Your task to perform on an android device: find snoozed emails in the gmail app Image 0: 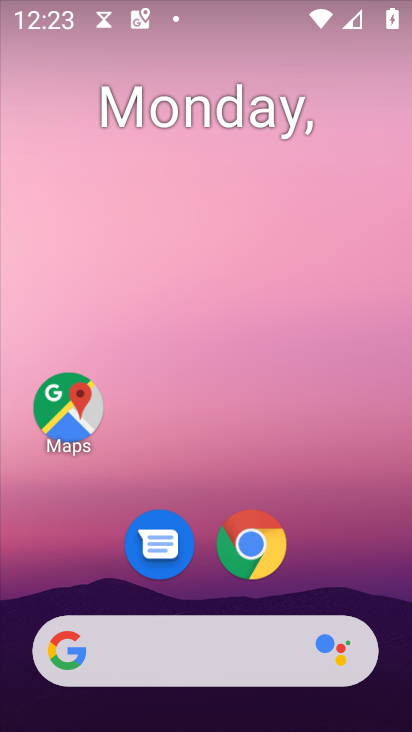
Step 0: drag from (317, 352) to (312, 209)
Your task to perform on an android device: find snoozed emails in the gmail app Image 1: 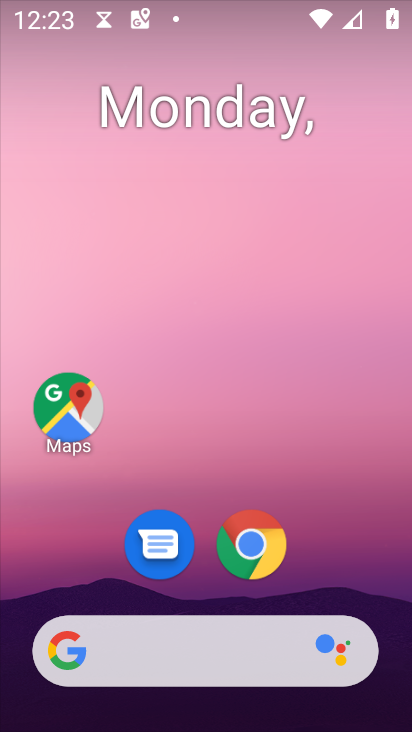
Step 1: drag from (344, 605) to (345, 220)
Your task to perform on an android device: find snoozed emails in the gmail app Image 2: 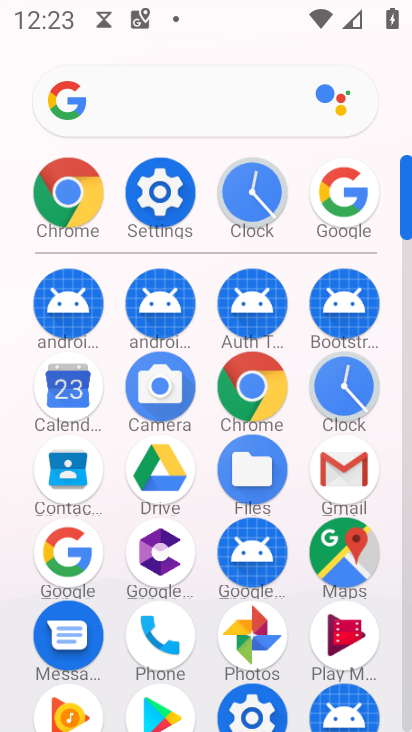
Step 2: click (335, 473)
Your task to perform on an android device: find snoozed emails in the gmail app Image 3: 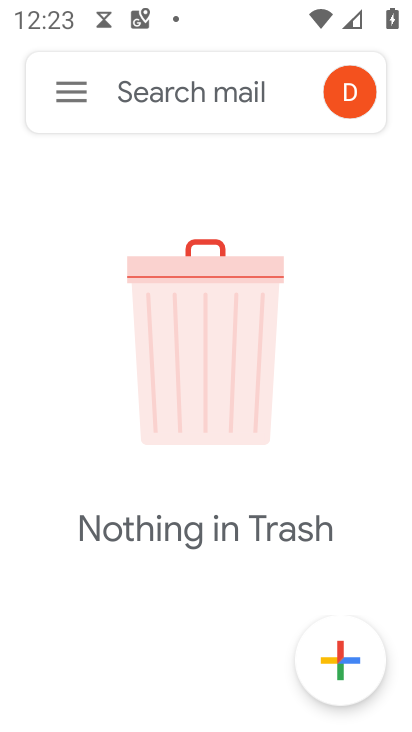
Step 3: click (57, 85)
Your task to perform on an android device: find snoozed emails in the gmail app Image 4: 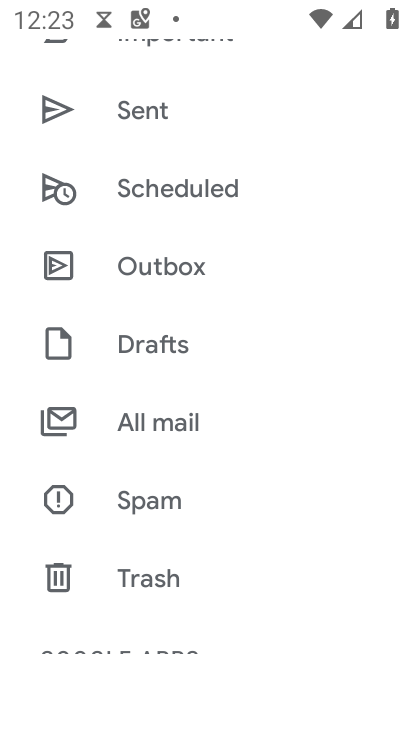
Step 4: drag from (168, 167) to (154, 613)
Your task to perform on an android device: find snoozed emails in the gmail app Image 5: 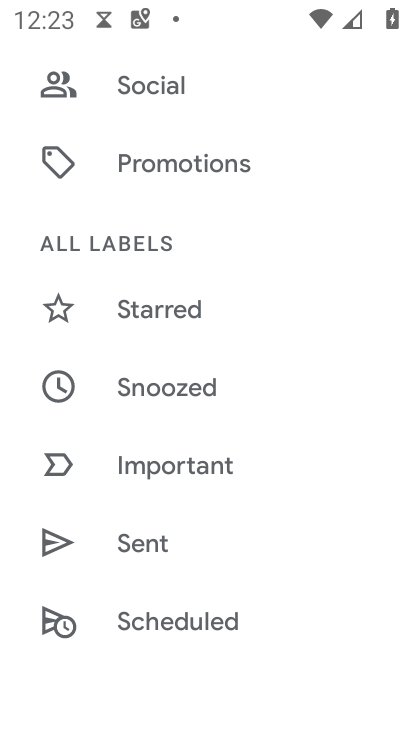
Step 5: click (165, 381)
Your task to perform on an android device: find snoozed emails in the gmail app Image 6: 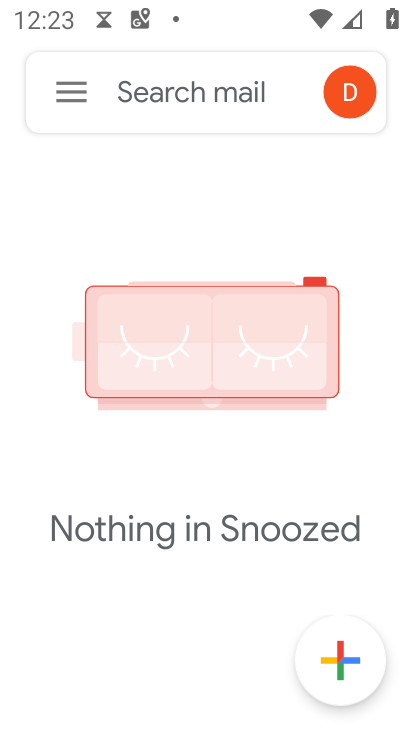
Step 6: task complete